Your task to perform on an android device: see creations saved in the google photos Image 0: 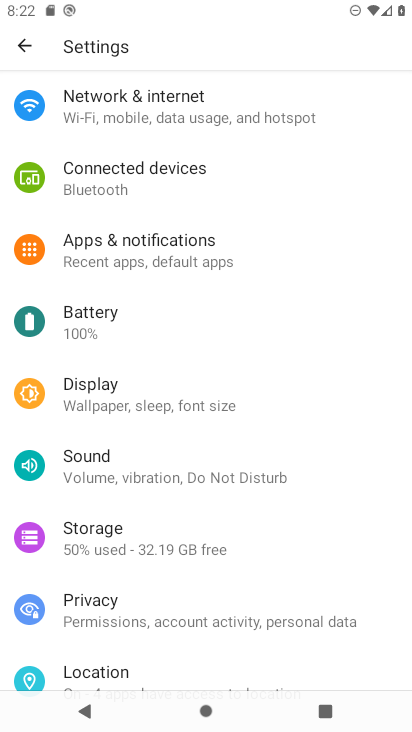
Step 0: press home button
Your task to perform on an android device: see creations saved in the google photos Image 1: 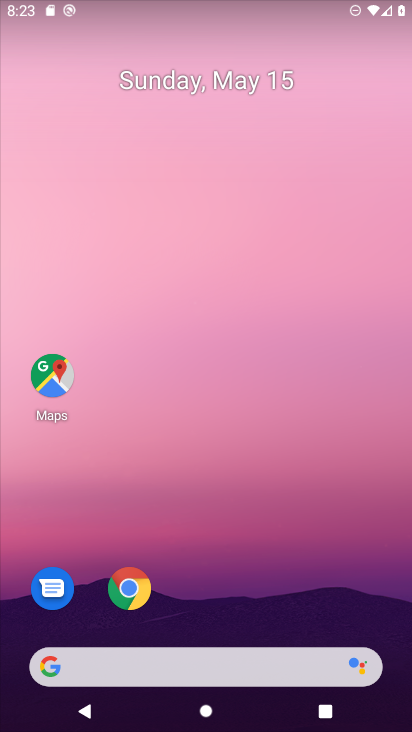
Step 1: drag from (214, 623) to (236, 194)
Your task to perform on an android device: see creations saved in the google photos Image 2: 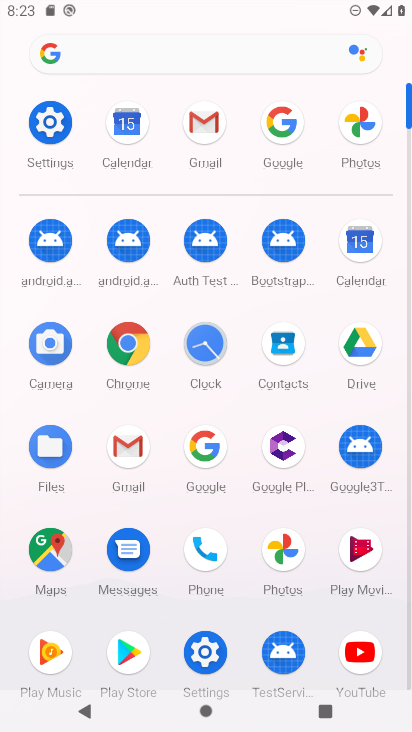
Step 2: click (276, 536)
Your task to perform on an android device: see creations saved in the google photos Image 3: 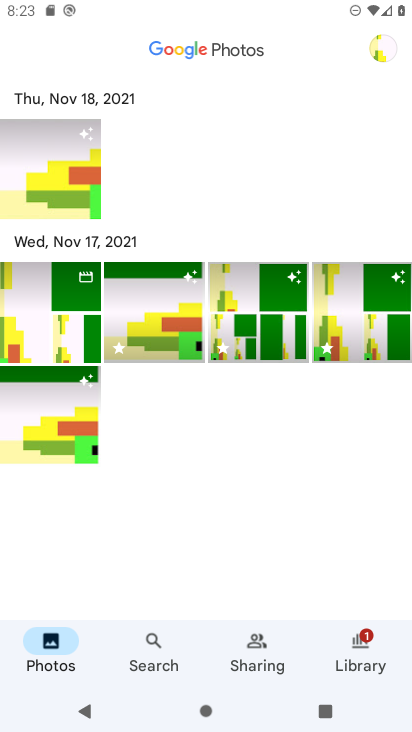
Step 3: click (152, 649)
Your task to perform on an android device: see creations saved in the google photos Image 4: 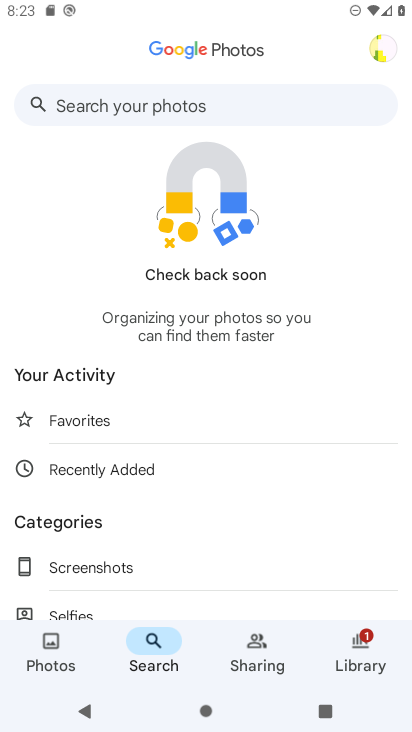
Step 4: drag from (141, 535) to (164, 268)
Your task to perform on an android device: see creations saved in the google photos Image 5: 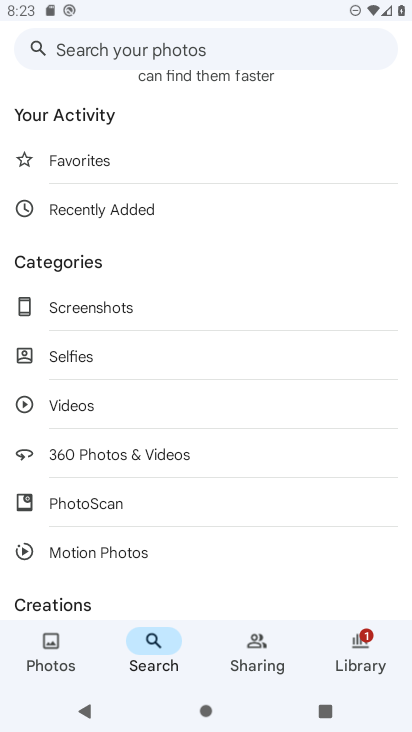
Step 5: drag from (133, 517) to (145, 191)
Your task to perform on an android device: see creations saved in the google photos Image 6: 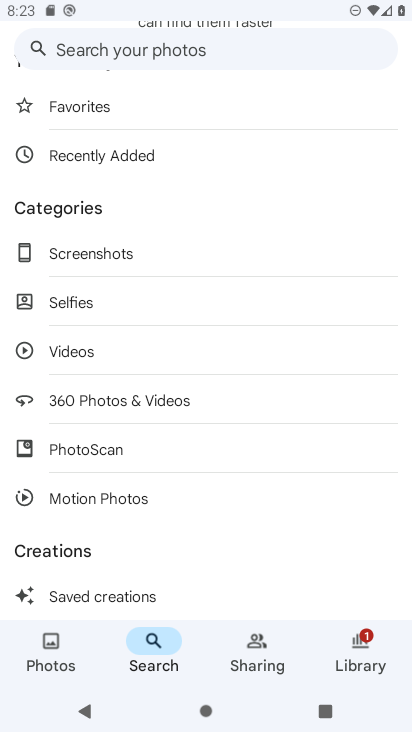
Step 6: click (140, 588)
Your task to perform on an android device: see creations saved in the google photos Image 7: 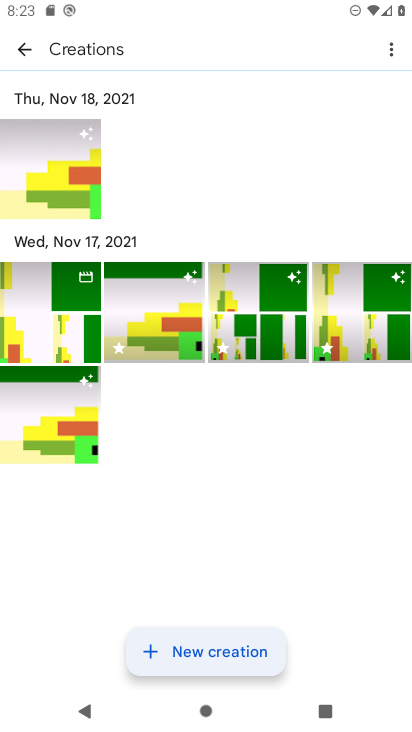
Step 7: task complete